Your task to perform on an android device: Show the shopping cart on bestbuy.com. Add "razer blade" to the cart on bestbuy.com Image 0: 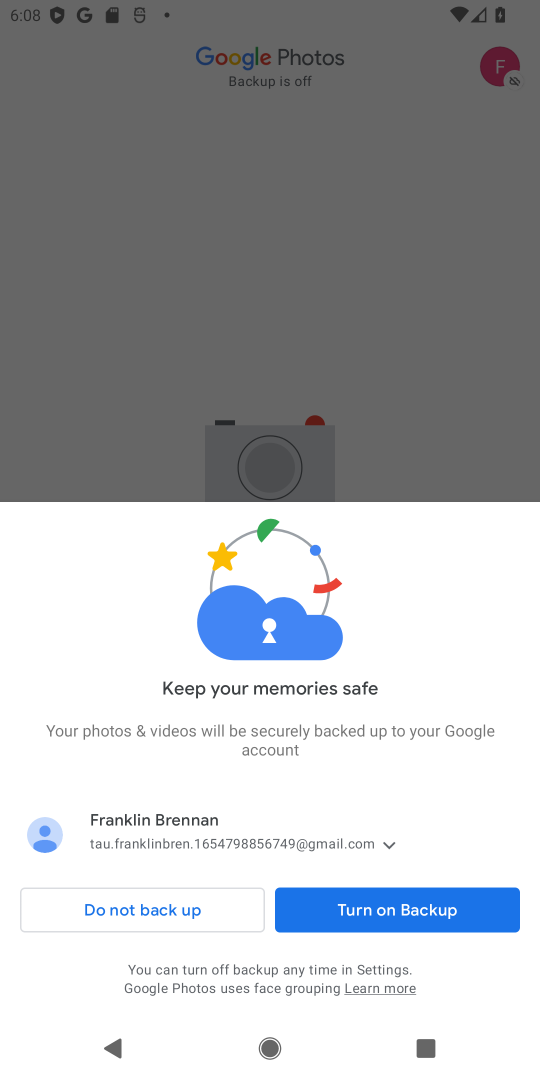
Step 0: press home button
Your task to perform on an android device: Show the shopping cart on bestbuy.com. Add "razer blade" to the cart on bestbuy.com Image 1: 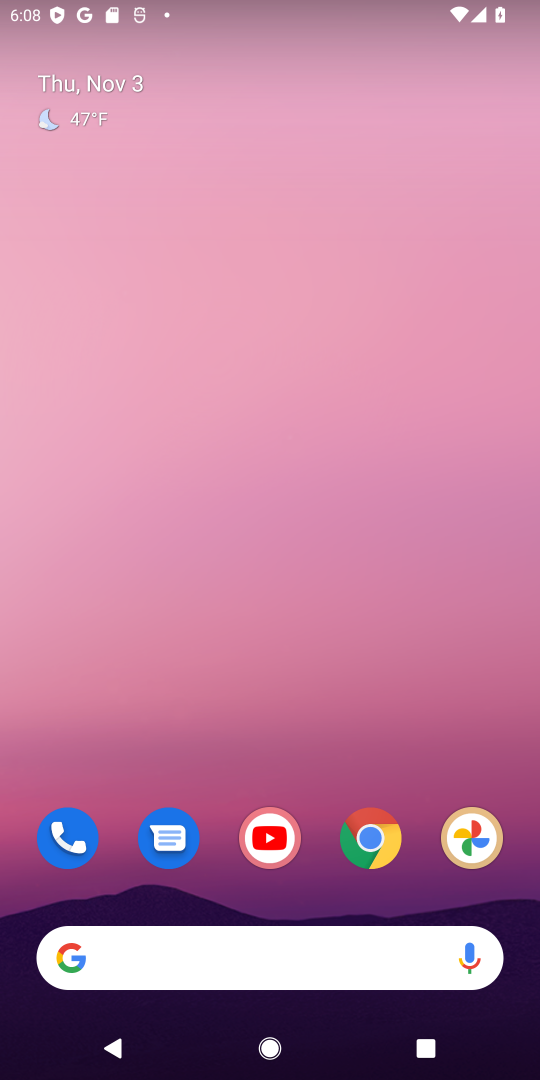
Step 1: click (261, 960)
Your task to perform on an android device: Show the shopping cart on bestbuy.com. Add "razer blade" to the cart on bestbuy.com Image 2: 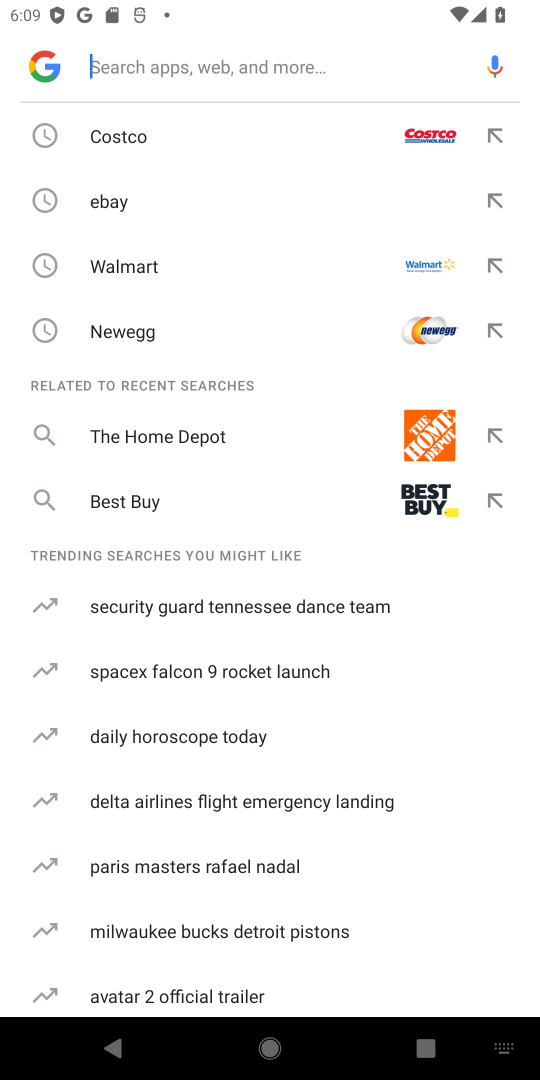
Step 2: click (260, 498)
Your task to perform on an android device: Show the shopping cart on bestbuy.com. Add "razer blade" to the cart on bestbuy.com Image 3: 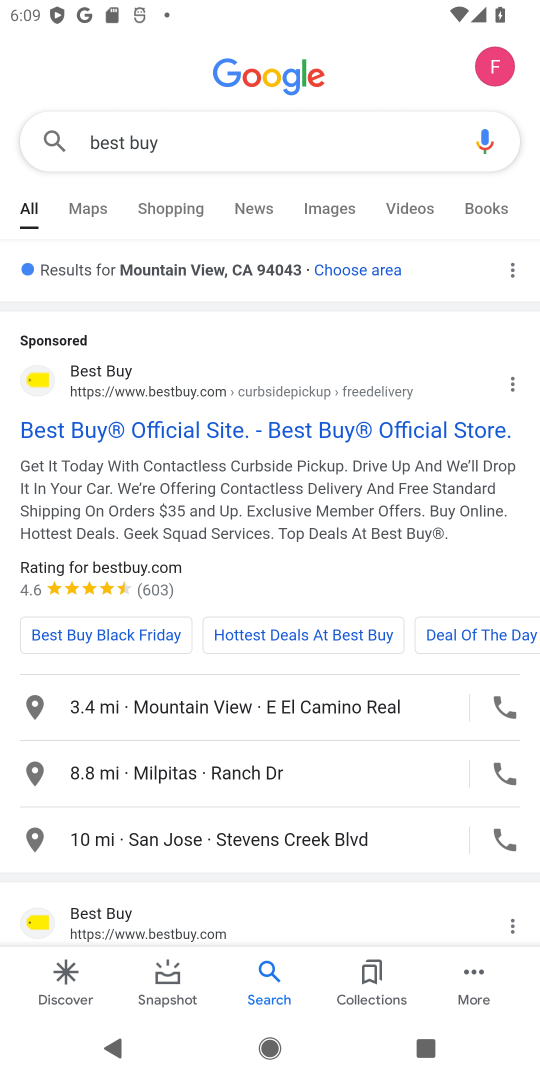
Step 3: click (89, 367)
Your task to perform on an android device: Show the shopping cart on bestbuy.com. Add "razer blade" to the cart on bestbuy.com Image 4: 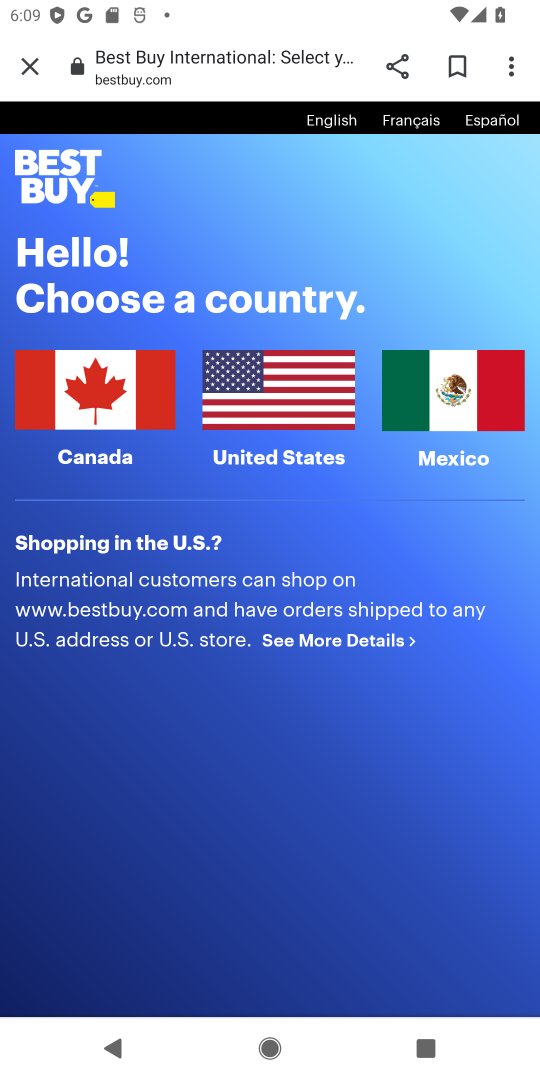
Step 4: click (286, 386)
Your task to perform on an android device: Show the shopping cart on bestbuy.com. Add "razer blade" to the cart on bestbuy.com Image 5: 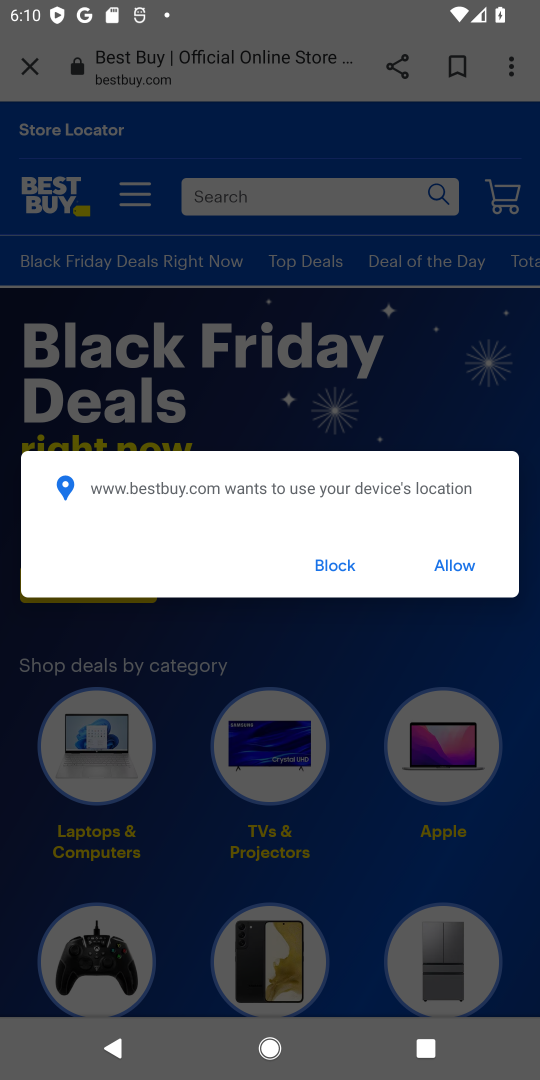
Step 5: click (328, 557)
Your task to perform on an android device: Show the shopping cart on bestbuy.com. Add "razer blade" to the cart on bestbuy.com Image 6: 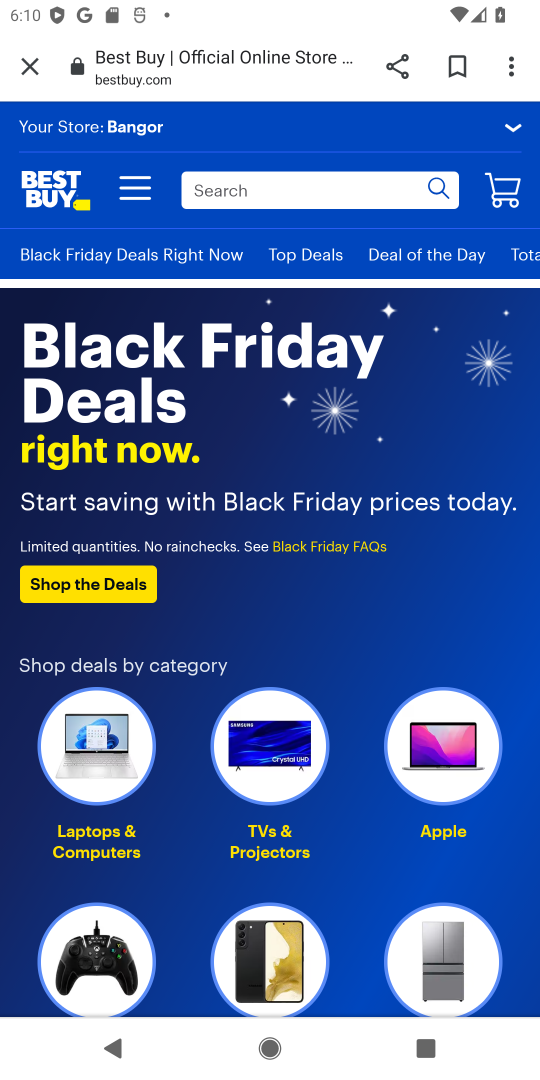
Step 6: click (328, 201)
Your task to perform on an android device: Show the shopping cart on bestbuy.com. Add "razer blade" to the cart on bestbuy.com Image 7: 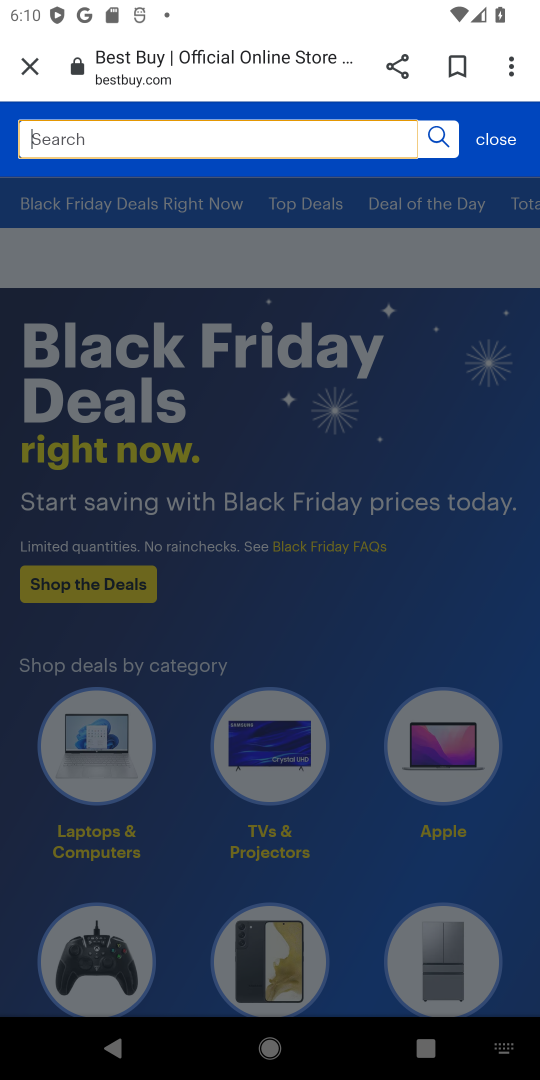
Step 7: type "razer blade"
Your task to perform on an android device: Show the shopping cart on bestbuy.com. Add "razer blade" to the cart on bestbuy.com Image 8: 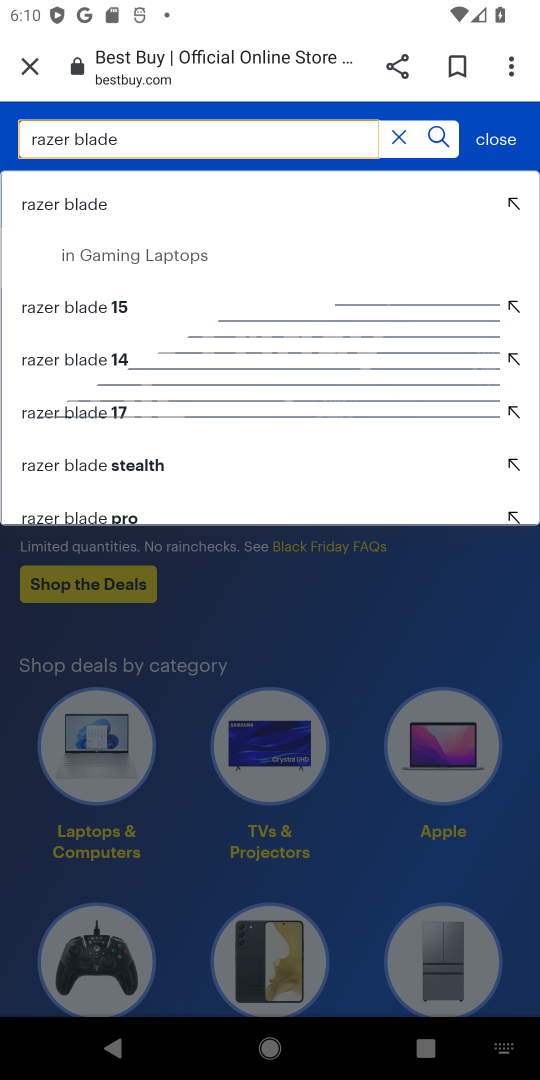
Step 8: click (70, 210)
Your task to perform on an android device: Show the shopping cart on bestbuy.com. Add "razer blade" to the cart on bestbuy.com Image 9: 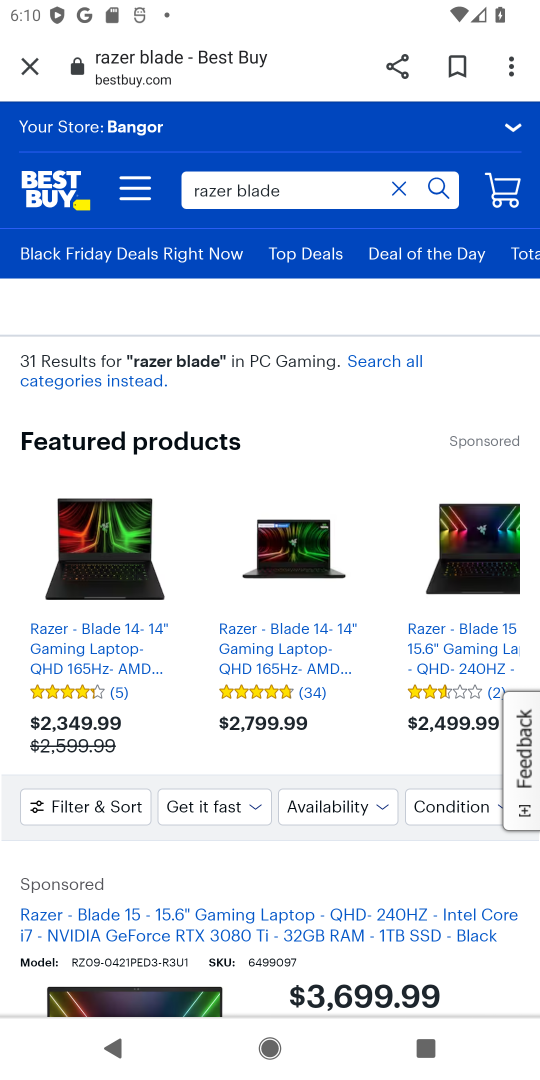
Step 9: drag from (364, 850) to (322, 469)
Your task to perform on an android device: Show the shopping cart on bestbuy.com. Add "razer blade" to the cart on bestbuy.com Image 10: 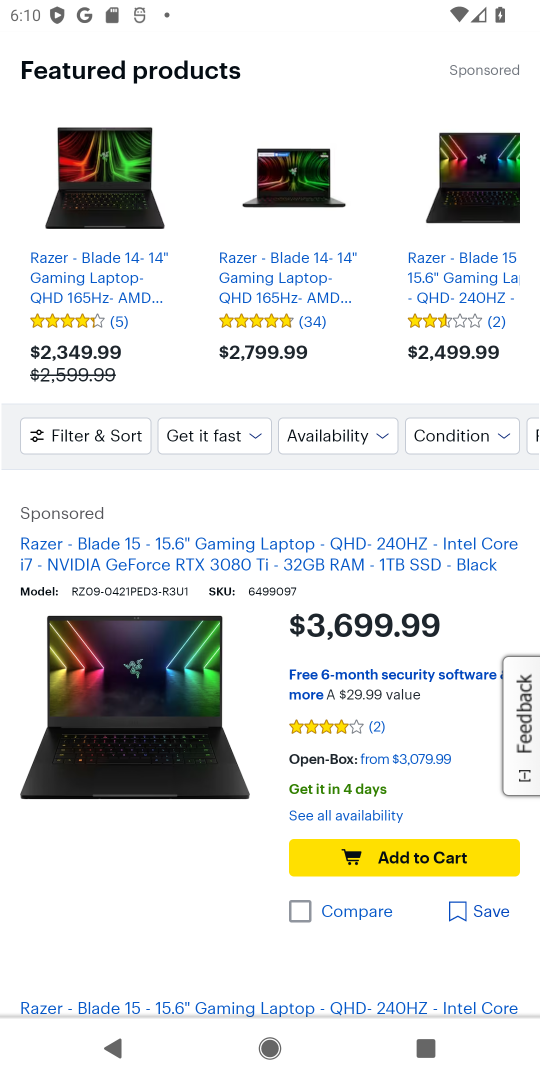
Step 10: click (385, 854)
Your task to perform on an android device: Show the shopping cart on bestbuy.com. Add "razer blade" to the cart on bestbuy.com Image 11: 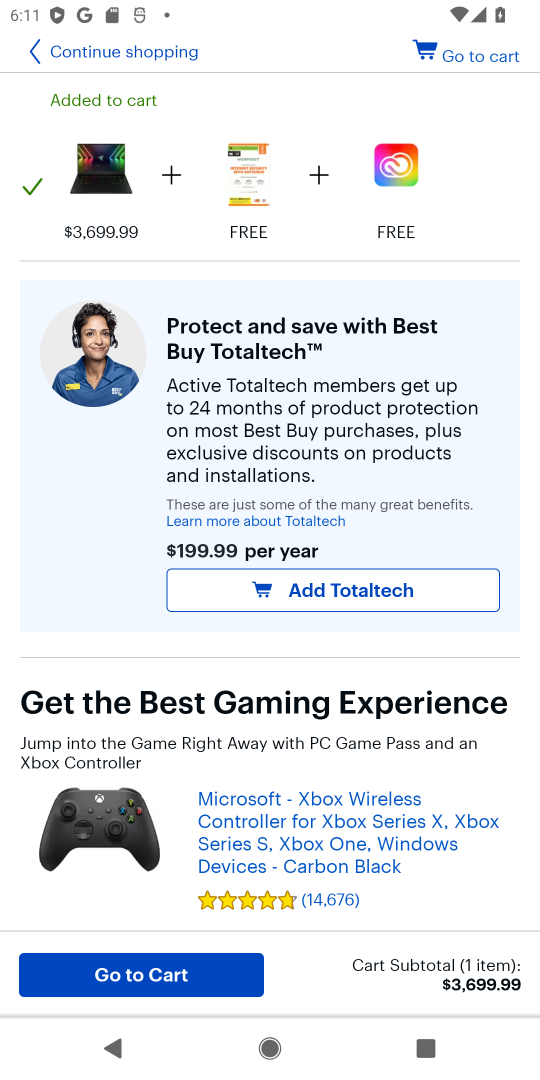
Step 11: task complete